Your task to perform on an android device: Open network settings Image 0: 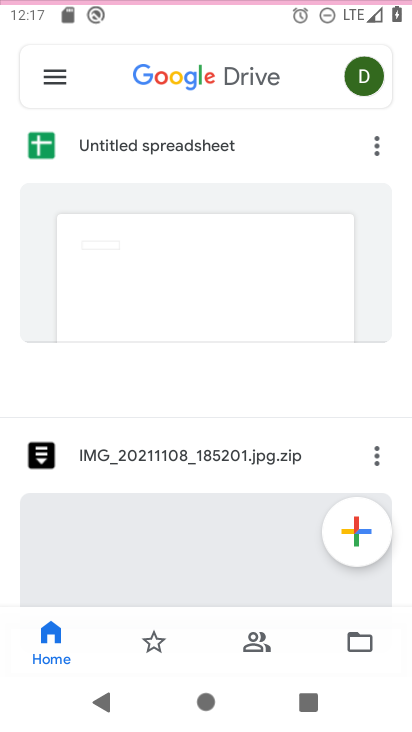
Step 0: press home button
Your task to perform on an android device: Open network settings Image 1: 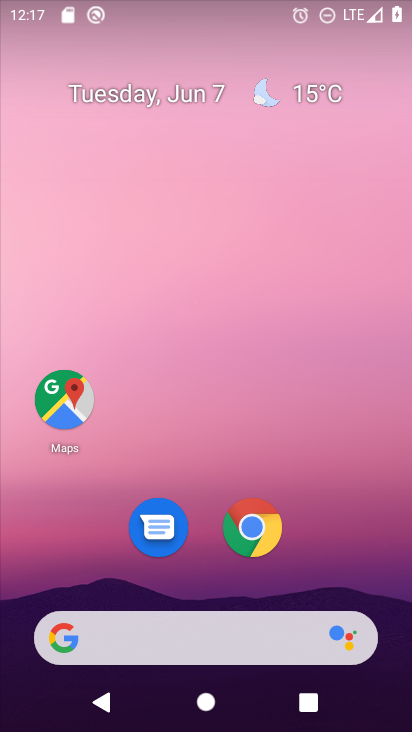
Step 1: drag from (350, 545) to (286, 47)
Your task to perform on an android device: Open network settings Image 2: 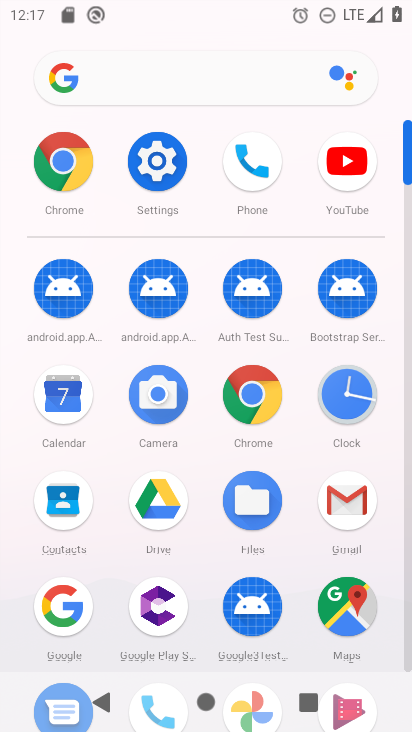
Step 2: click (160, 168)
Your task to perform on an android device: Open network settings Image 3: 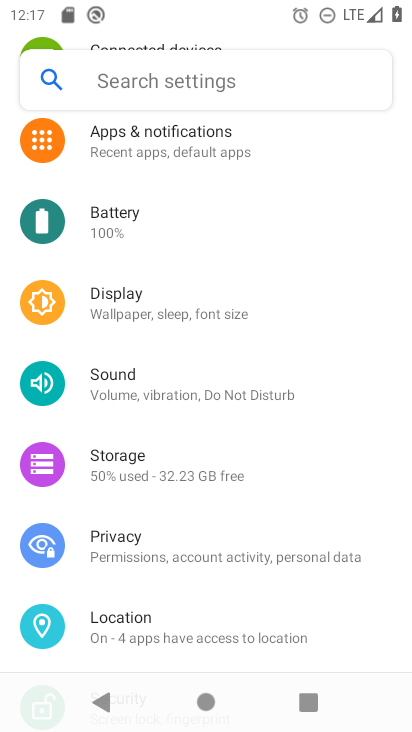
Step 3: drag from (332, 252) to (331, 404)
Your task to perform on an android device: Open network settings Image 4: 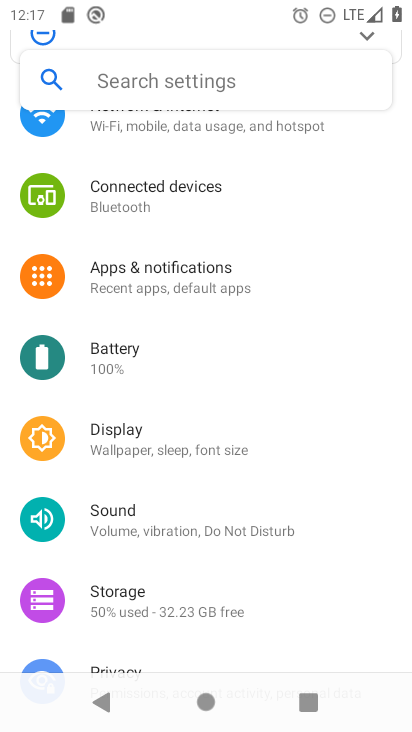
Step 4: drag from (320, 224) to (321, 372)
Your task to perform on an android device: Open network settings Image 5: 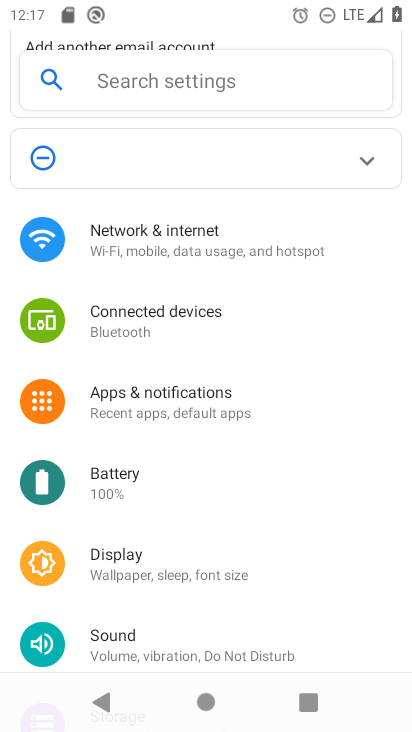
Step 5: drag from (333, 207) to (348, 398)
Your task to perform on an android device: Open network settings Image 6: 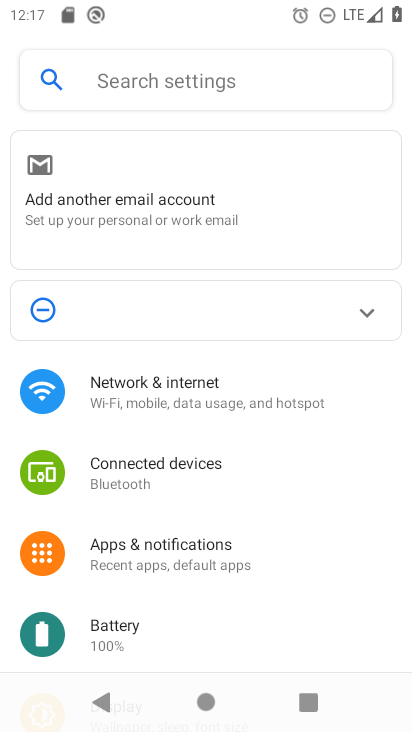
Step 6: drag from (306, 168) to (324, 438)
Your task to perform on an android device: Open network settings Image 7: 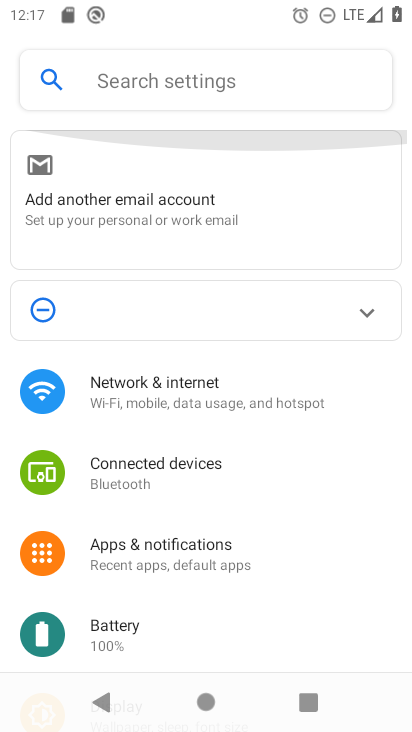
Step 7: drag from (319, 452) to (318, 279)
Your task to perform on an android device: Open network settings Image 8: 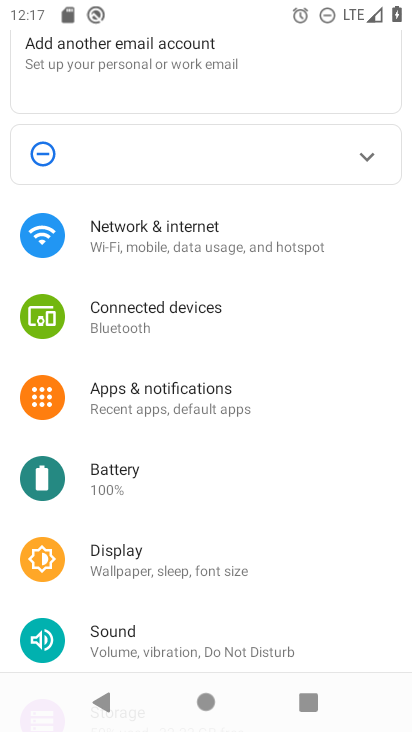
Step 8: drag from (314, 416) to (305, 238)
Your task to perform on an android device: Open network settings Image 9: 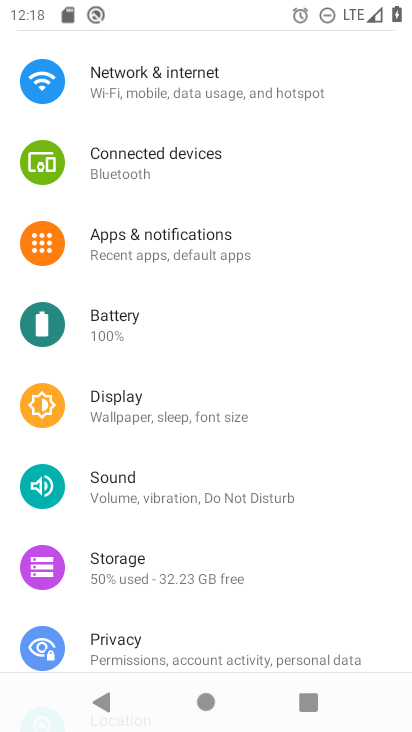
Step 9: drag from (329, 410) to (336, 241)
Your task to perform on an android device: Open network settings Image 10: 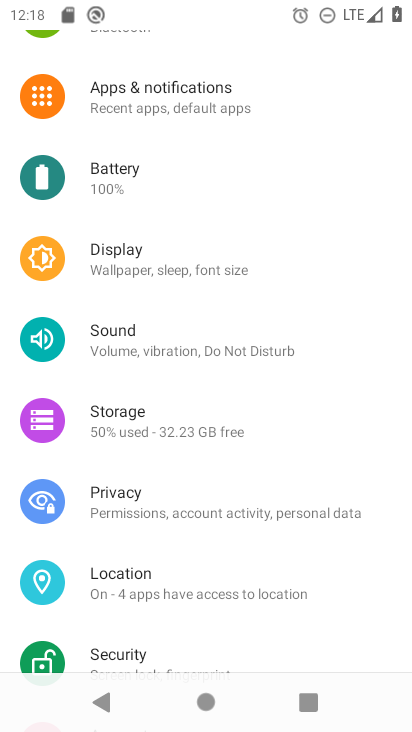
Step 10: drag from (337, 375) to (339, 224)
Your task to perform on an android device: Open network settings Image 11: 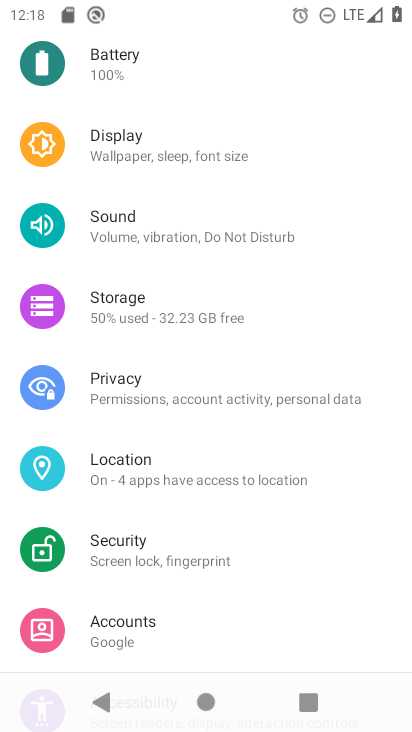
Step 11: drag from (353, 471) to (352, 340)
Your task to perform on an android device: Open network settings Image 12: 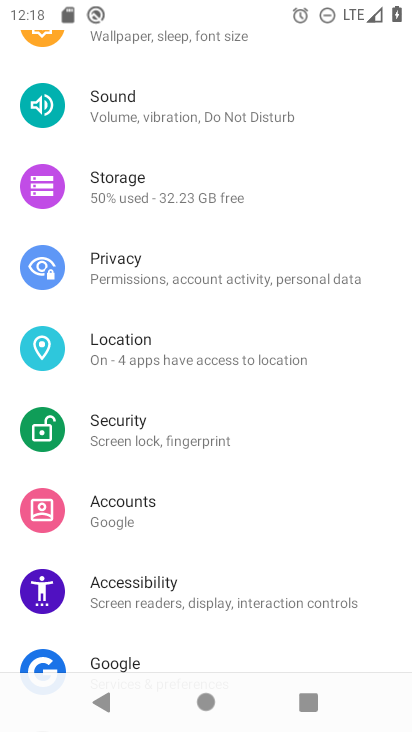
Step 12: drag from (332, 178) to (319, 410)
Your task to perform on an android device: Open network settings Image 13: 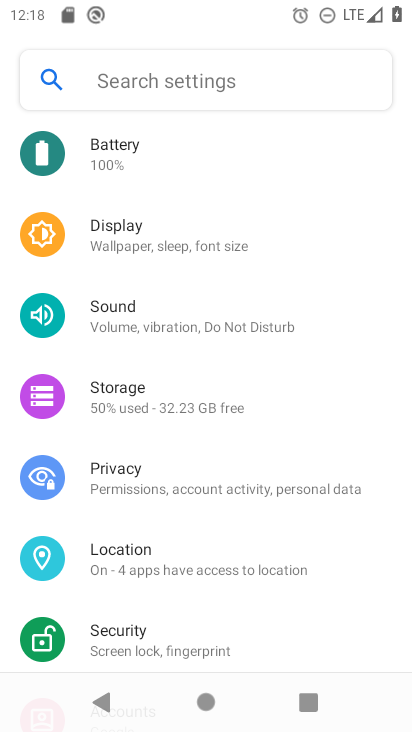
Step 13: drag from (318, 189) to (323, 367)
Your task to perform on an android device: Open network settings Image 14: 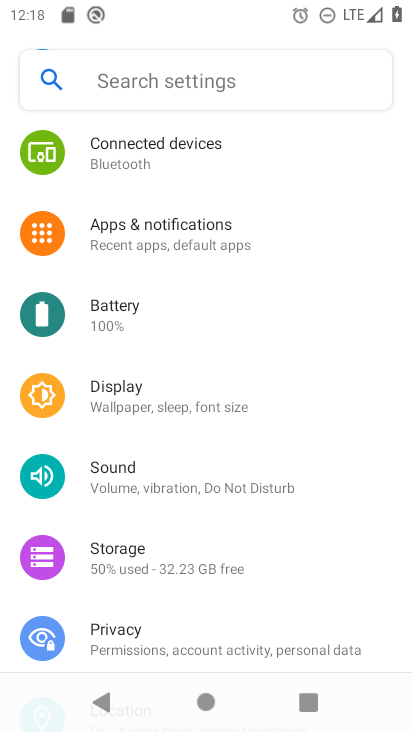
Step 14: drag from (322, 192) to (330, 422)
Your task to perform on an android device: Open network settings Image 15: 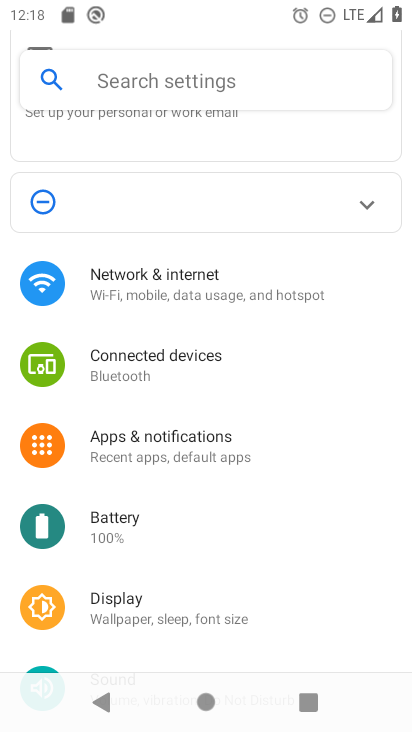
Step 15: click (228, 298)
Your task to perform on an android device: Open network settings Image 16: 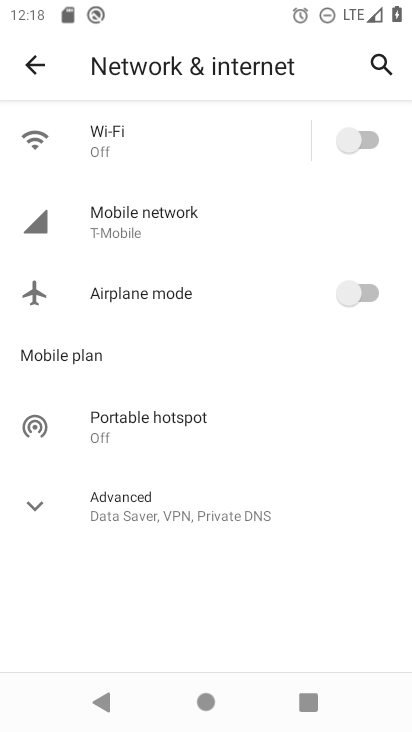
Step 16: task complete